Your task to perform on an android device: set default search engine in the chrome app Image 0: 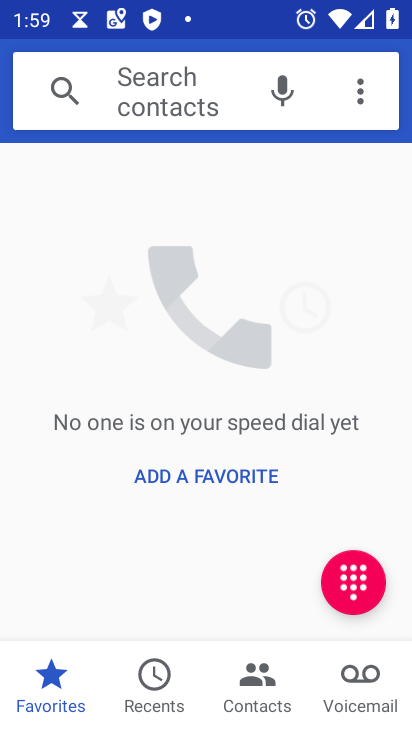
Step 0: press home button
Your task to perform on an android device: set default search engine in the chrome app Image 1: 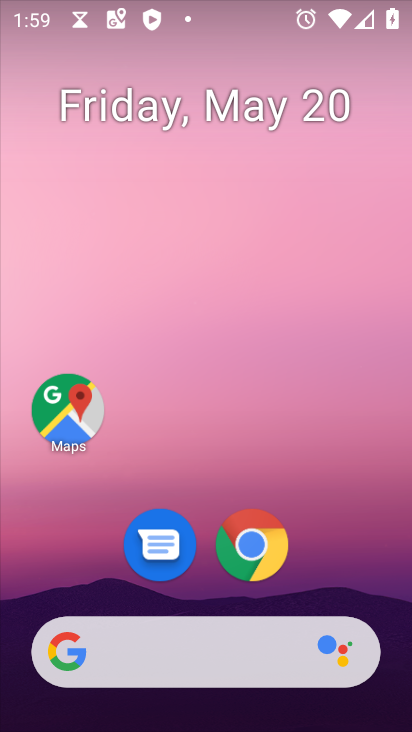
Step 1: click (263, 536)
Your task to perform on an android device: set default search engine in the chrome app Image 2: 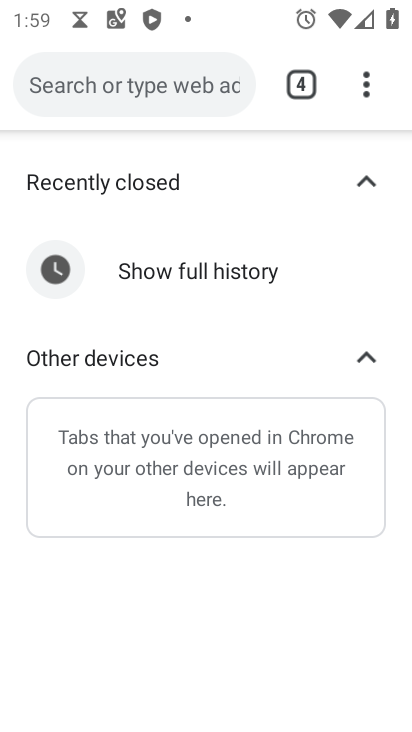
Step 2: click (377, 79)
Your task to perform on an android device: set default search engine in the chrome app Image 3: 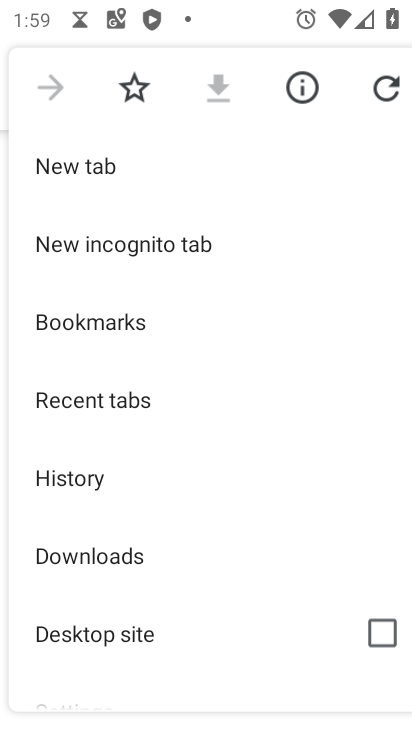
Step 3: drag from (167, 601) to (195, 200)
Your task to perform on an android device: set default search engine in the chrome app Image 4: 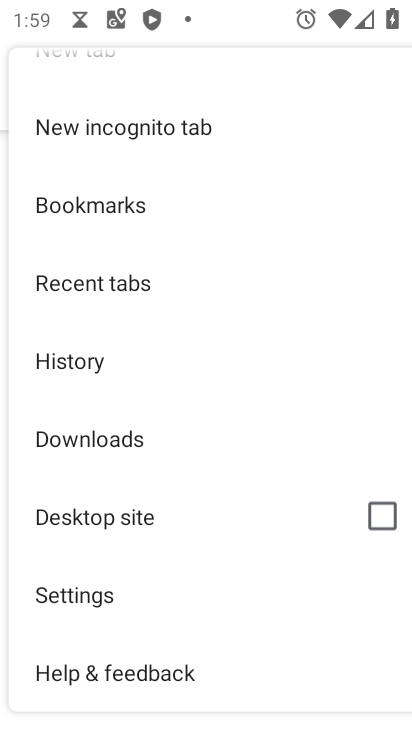
Step 4: click (97, 598)
Your task to perform on an android device: set default search engine in the chrome app Image 5: 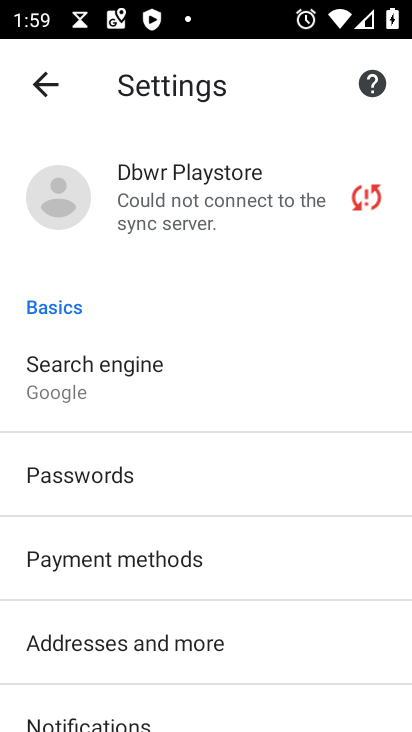
Step 5: drag from (264, 598) to (272, 291)
Your task to perform on an android device: set default search engine in the chrome app Image 6: 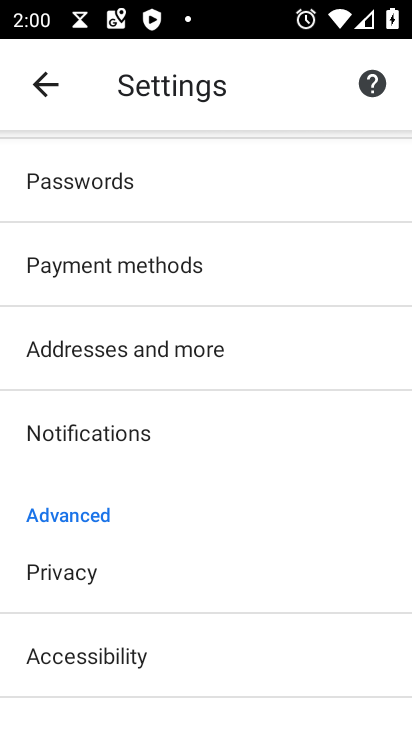
Step 6: click (242, 610)
Your task to perform on an android device: set default search engine in the chrome app Image 7: 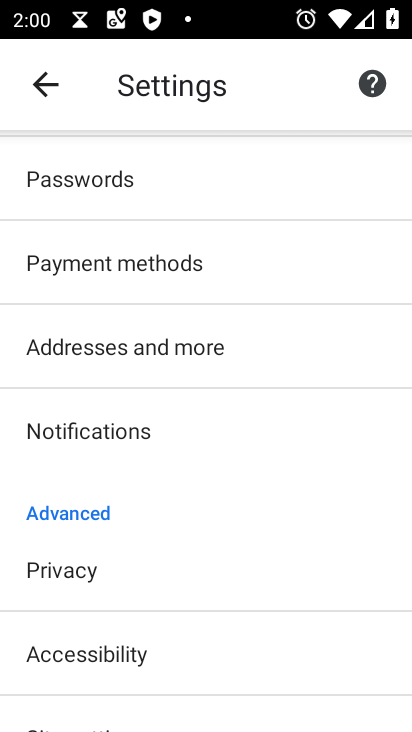
Step 7: drag from (254, 362) to (273, 625)
Your task to perform on an android device: set default search engine in the chrome app Image 8: 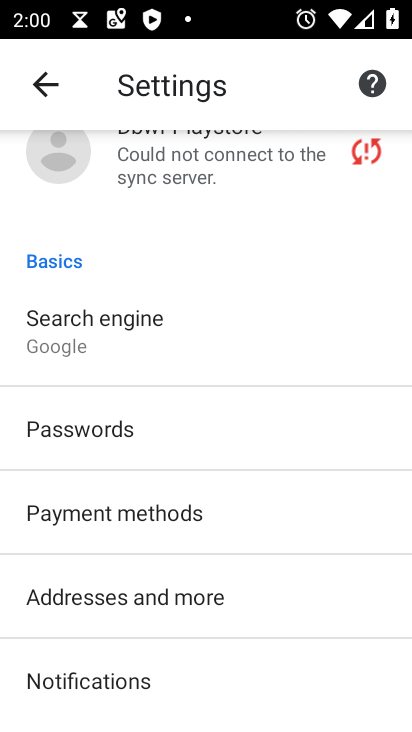
Step 8: click (197, 319)
Your task to perform on an android device: set default search engine in the chrome app Image 9: 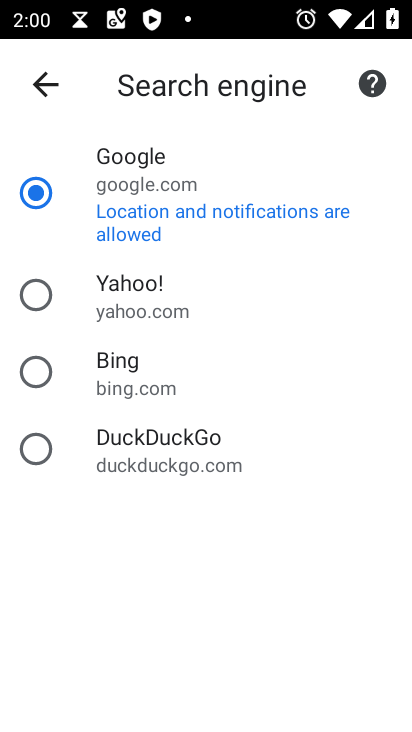
Step 9: task complete